Your task to perform on an android device: change the clock style Image 0: 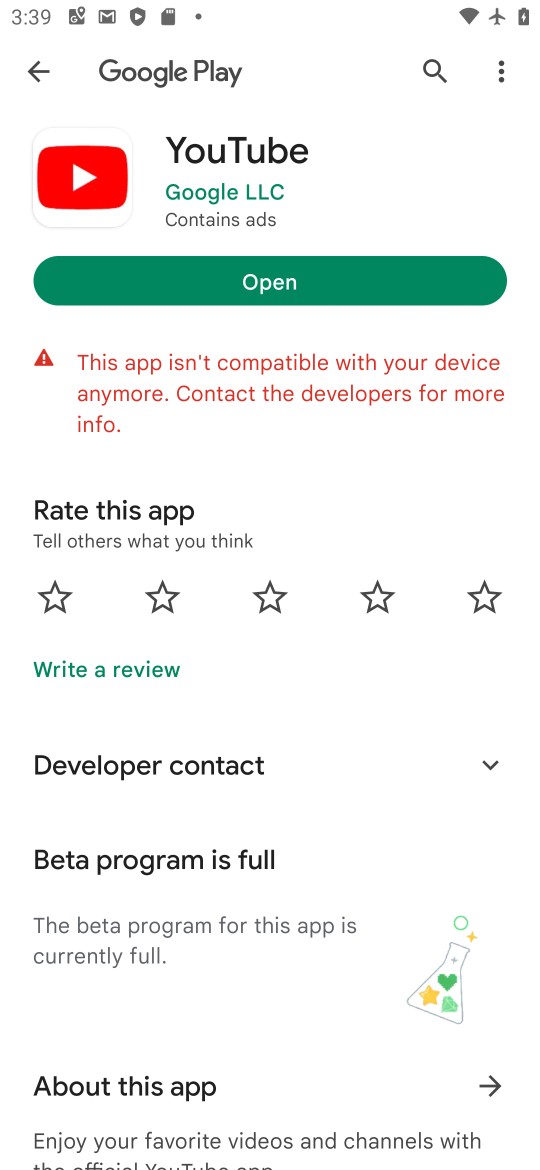
Step 0: press home button
Your task to perform on an android device: change the clock style Image 1: 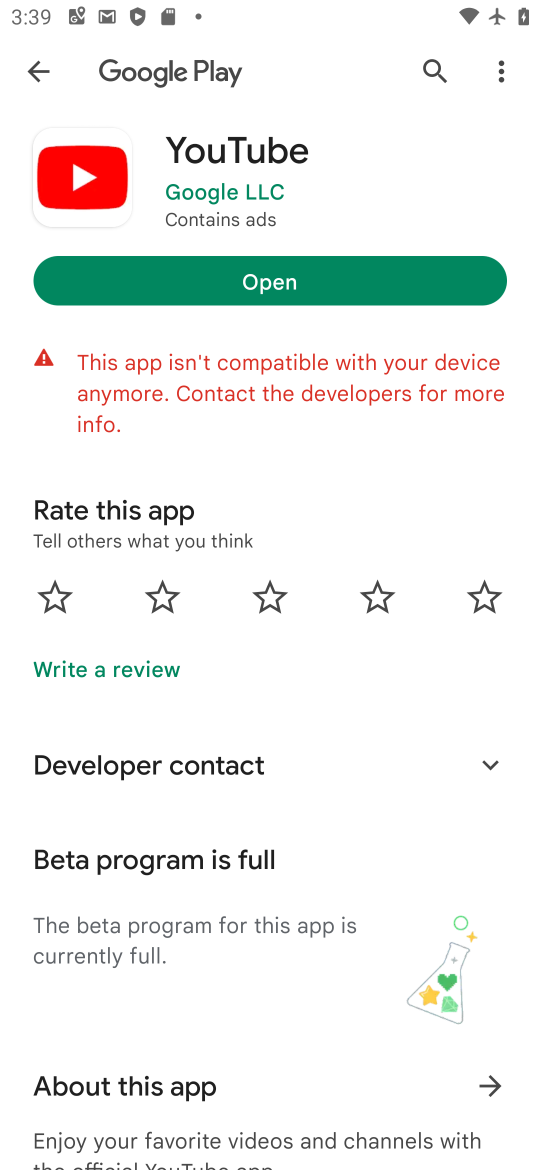
Step 1: press home button
Your task to perform on an android device: change the clock style Image 2: 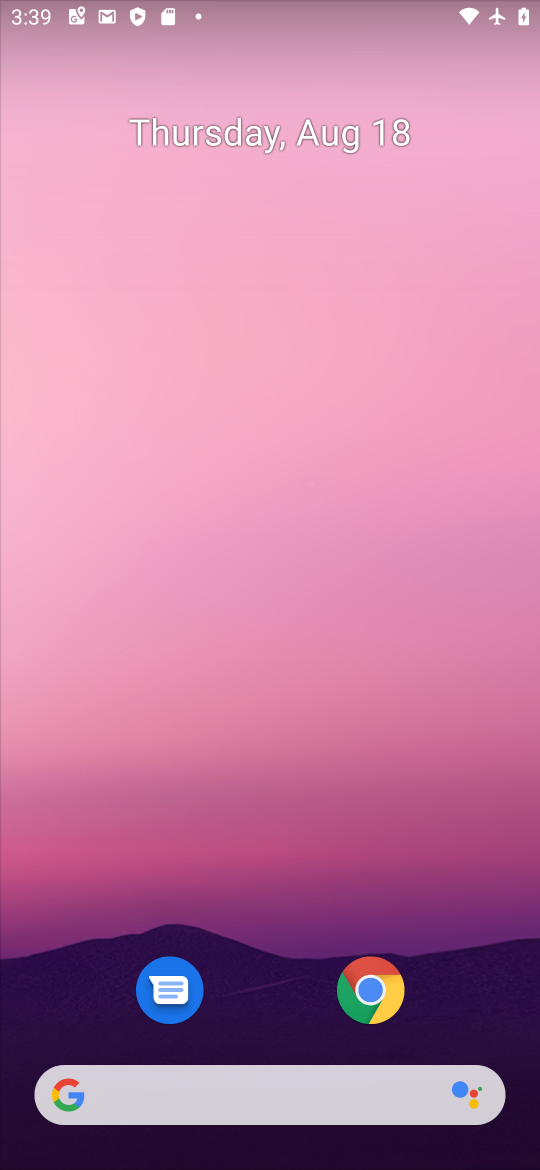
Step 2: drag from (275, 902) to (421, 154)
Your task to perform on an android device: change the clock style Image 3: 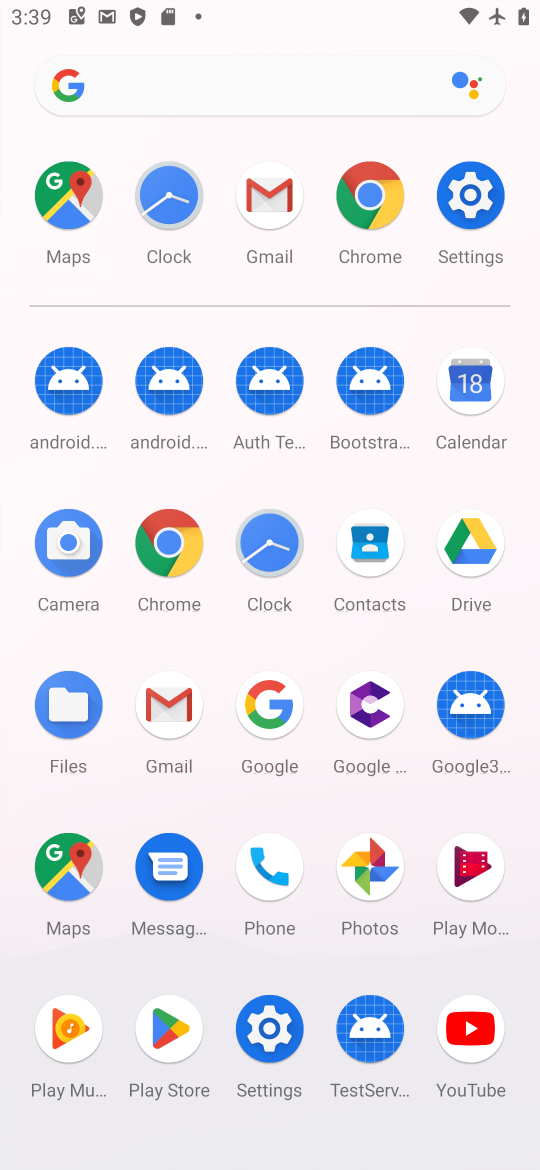
Step 3: click (286, 554)
Your task to perform on an android device: change the clock style Image 4: 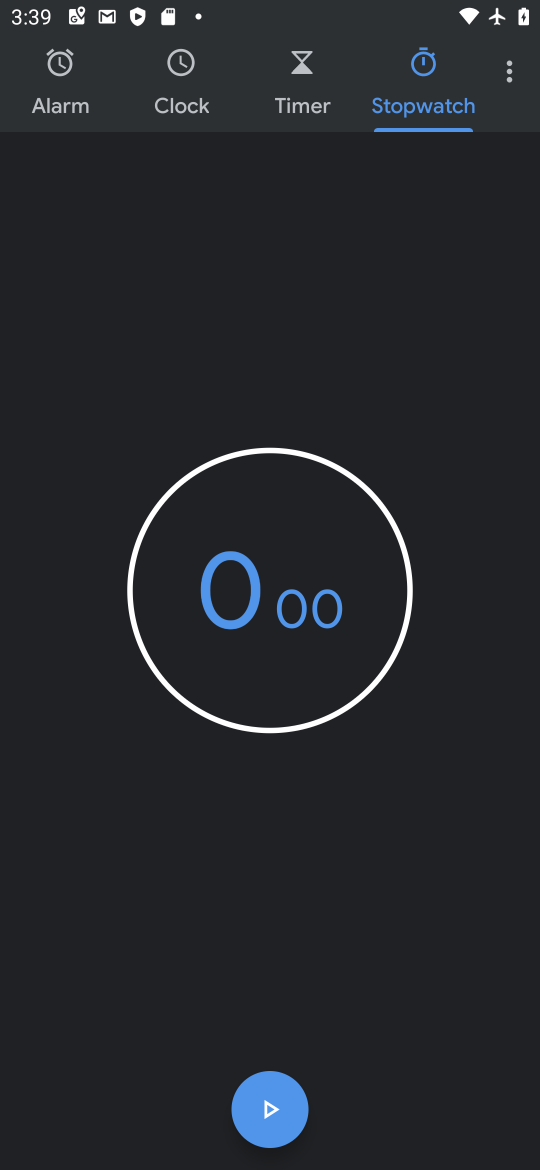
Step 4: click (517, 63)
Your task to perform on an android device: change the clock style Image 5: 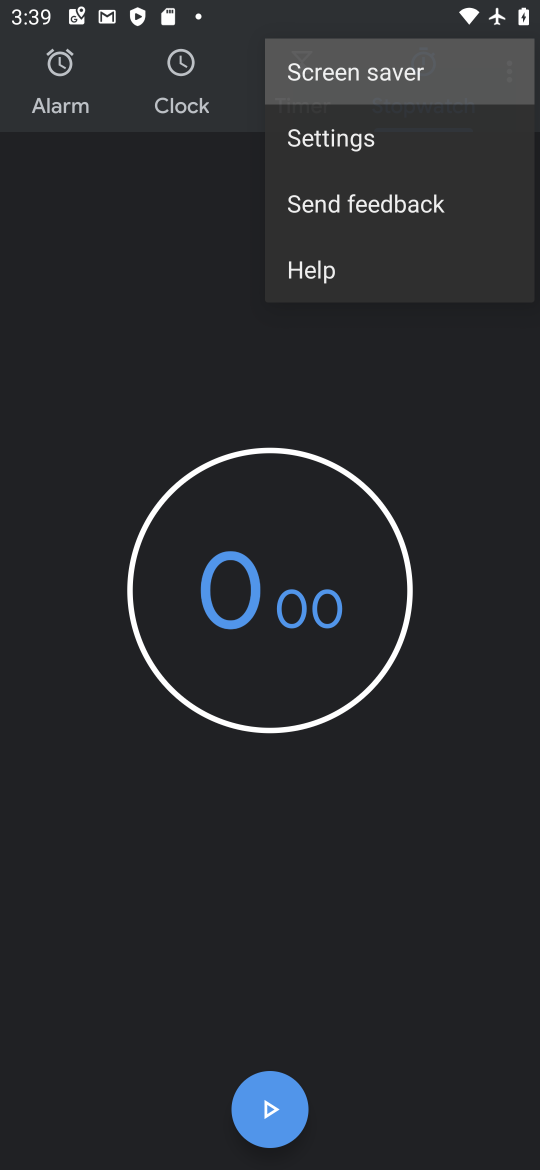
Step 5: click (499, 62)
Your task to perform on an android device: change the clock style Image 6: 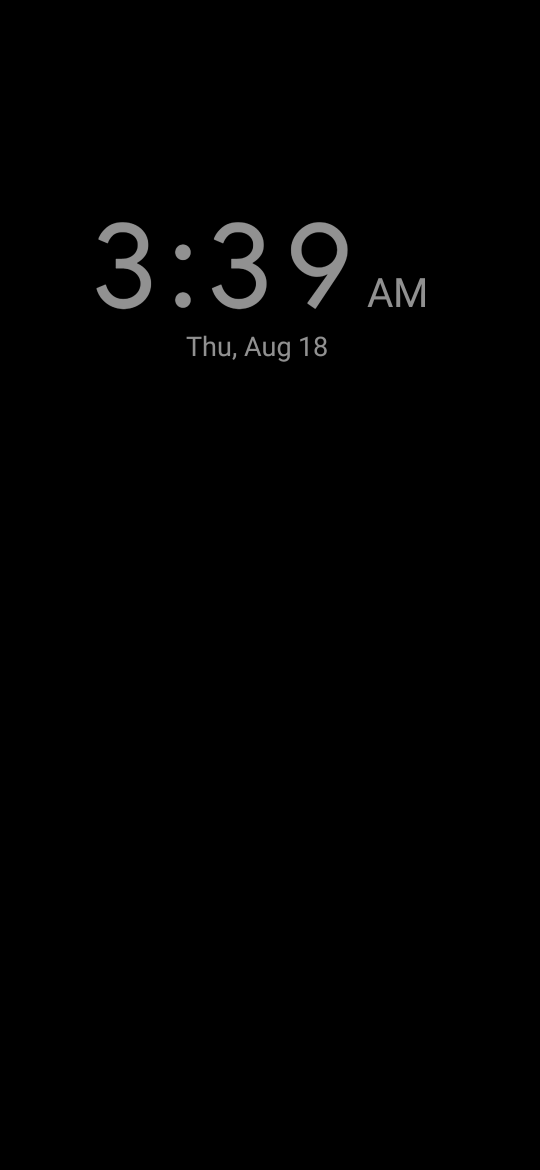
Step 6: press back button
Your task to perform on an android device: change the clock style Image 7: 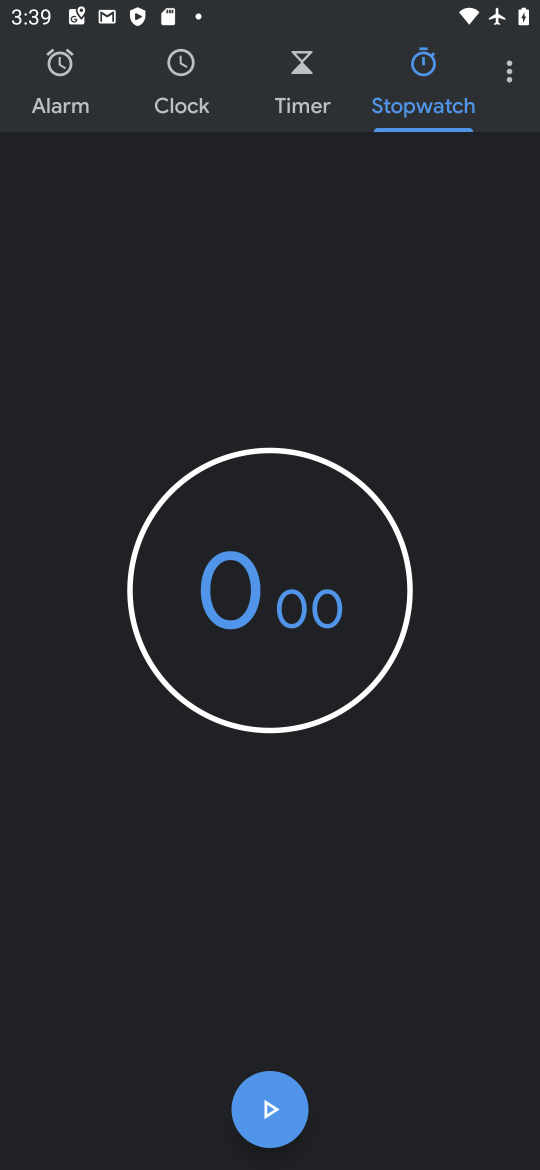
Step 7: click (512, 59)
Your task to perform on an android device: change the clock style Image 8: 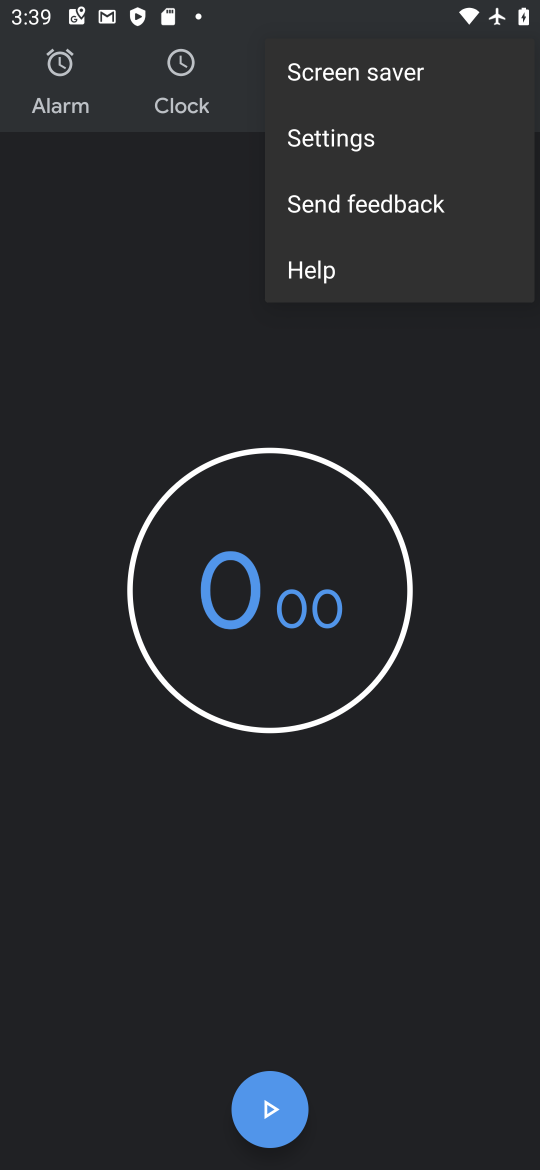
Step 8: click (353, 140)
Your task to perform on an android device: change the clock style Image 9: 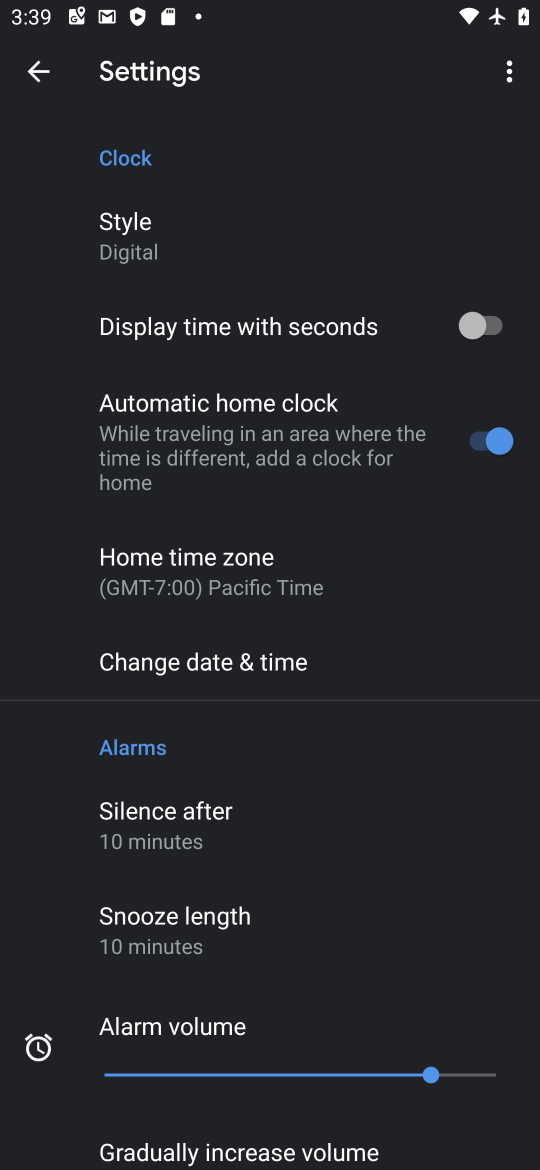
Step 9: click (176, 240)
Your task to perform on an android device: change the clock style Image 10: 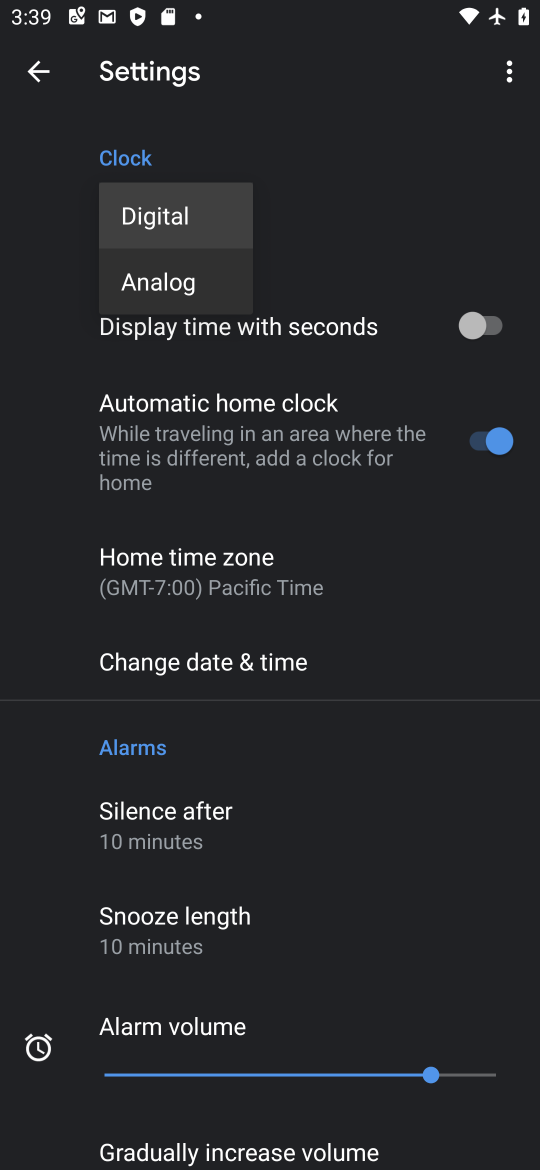
Step 10: click (211, 291)
Your task to perform on an android device: change the clock style Image 11: 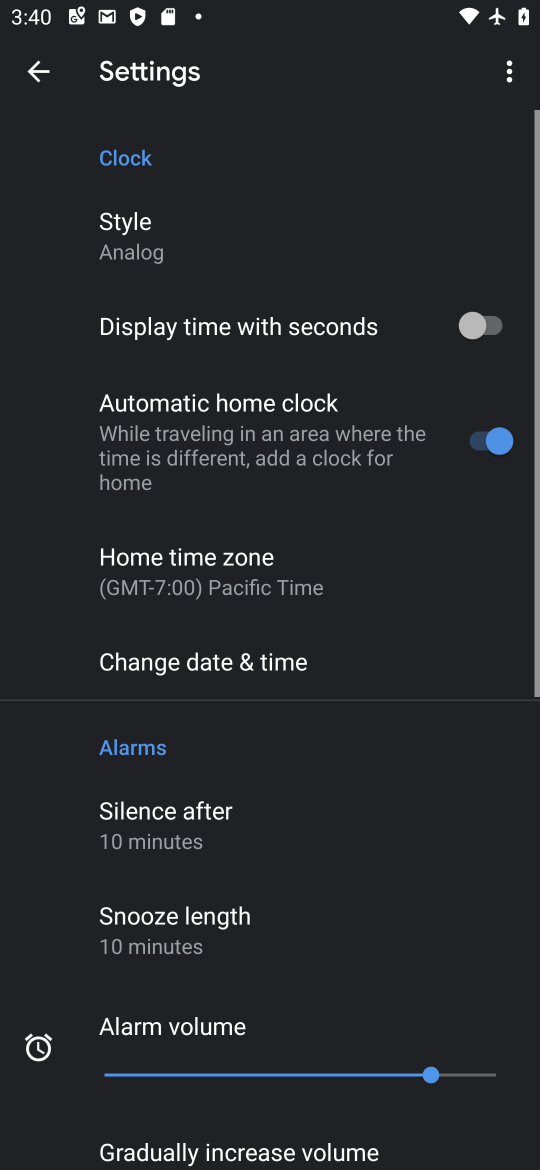
Step 11: task complete